Your task to perform on an android device: Open calendar and show me the second week of next month Image 0: 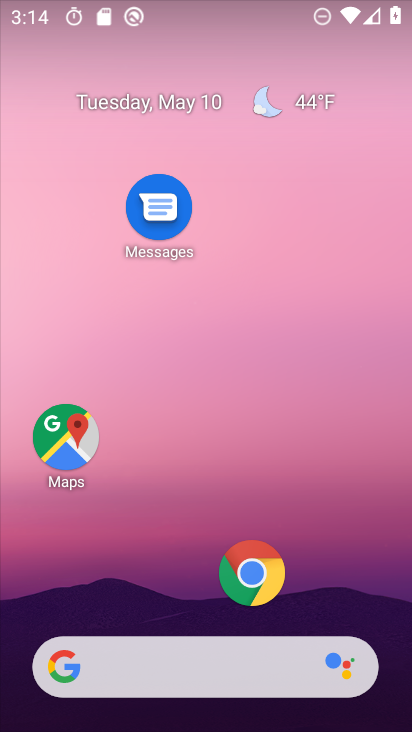
Step 0: drag from (197, 581) to (223, 332)
Your task to perform on an android device: Open calendar and show me the second week of next month Image 1: 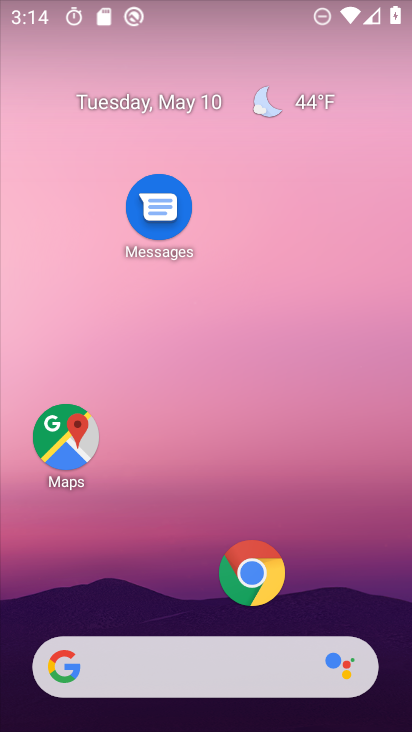
Step 1: drag from (207, 581) to (258, 115)
Your task to perform on an android device: Open calendar and show me the second week of next month Image 2: 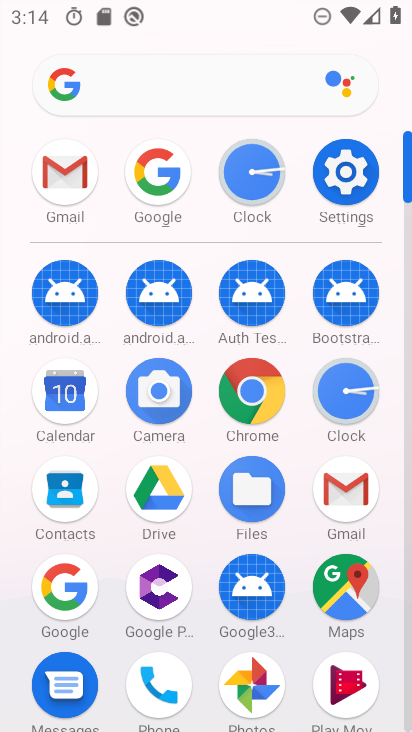
Step 2: click (54, 417)
Your task to perform on an android device: Open calendar and show me the second week of next month Image 3: 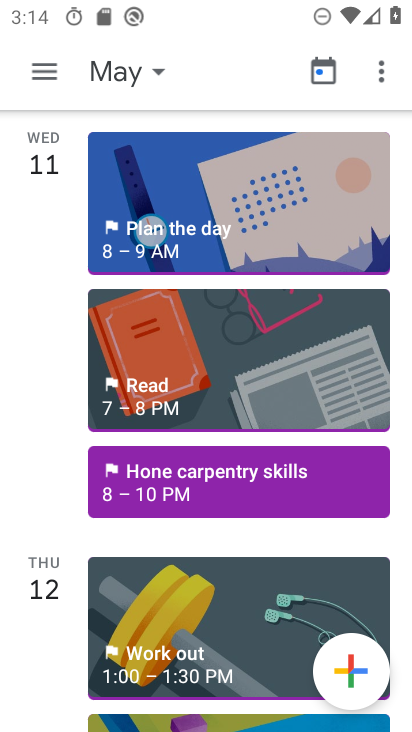
Step 3: click (167, 67)
Your task to perform on an android device: Open calendar and show me the second week of next month Image 4: 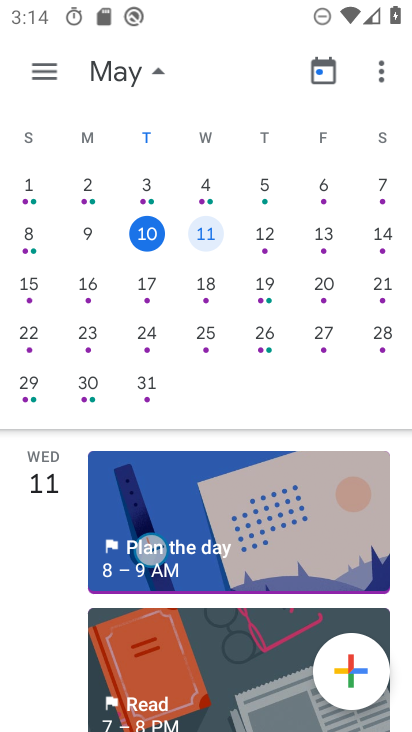
Step 4: drag from (296, 278) to (35, 250)
Your task to perform on an android device: Open calendar and show me the second week of next month Image 5: 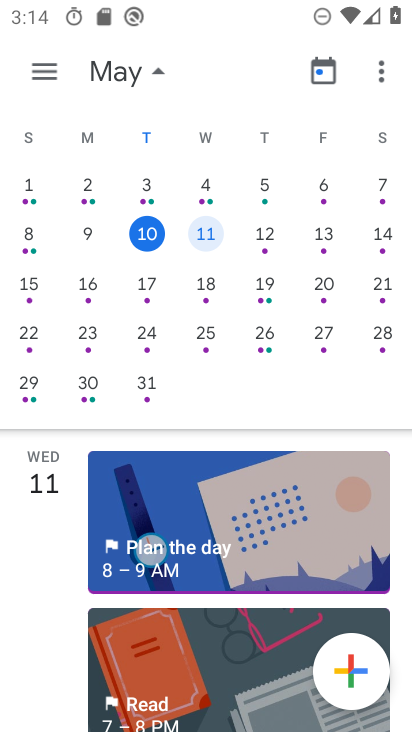
Step 5: click (83, 235)
Your task to perform on an android device: Open calendar and show me the second week of next month Image 6: 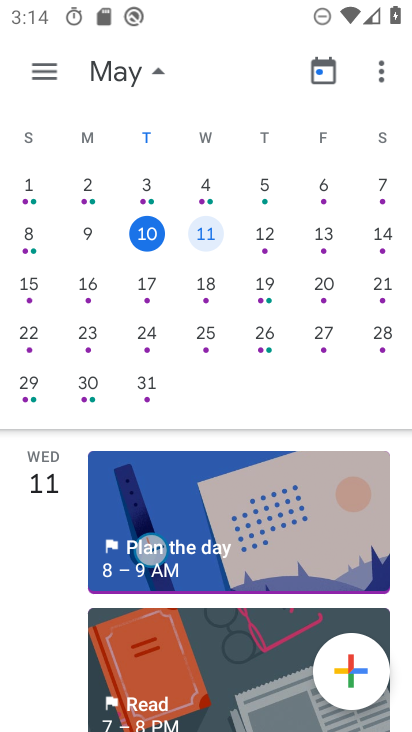
Step 6: click (19, 238)
Your task to perform on an android device: Open calendar and show me the second week of next month Image 7: 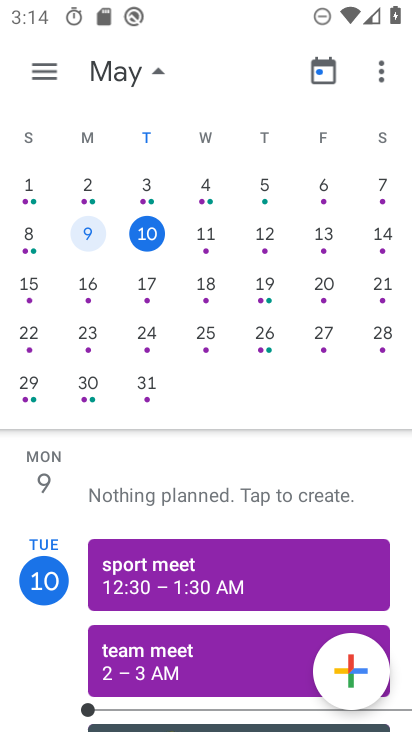
Step 7: click (36, 244)
Your task to perform on an android device: Open calendar and show me the second week of next month Image 8: 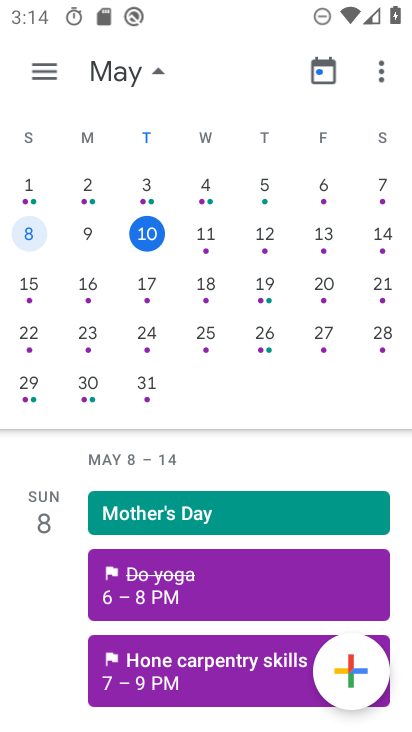
Step 8: task complete